Your task to perform on an android device: Go to Wikipedia Image 0: 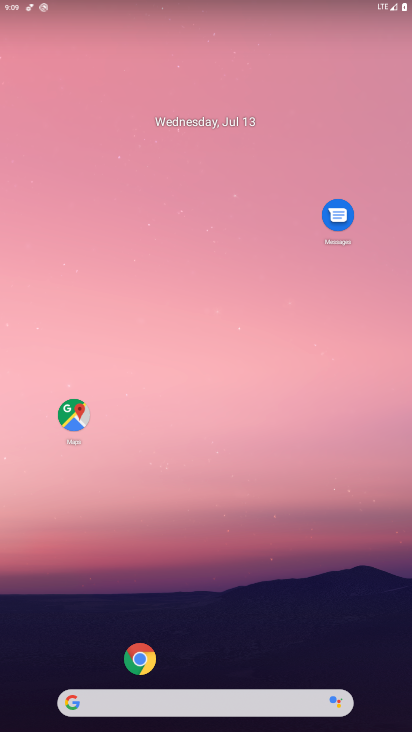
Step 0: click (127, 703)
Your task to perform on an android device: Go to Wikipedia Image 1: 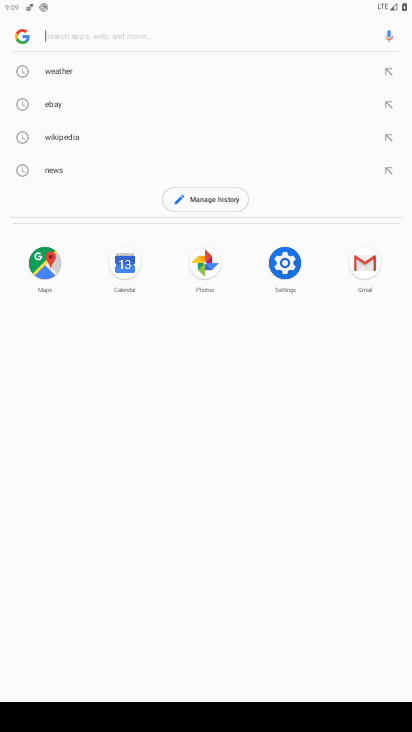
Step 1: type "Wikipedia"
Your task to perform on an android device: Go to Wikipedia Image 2: 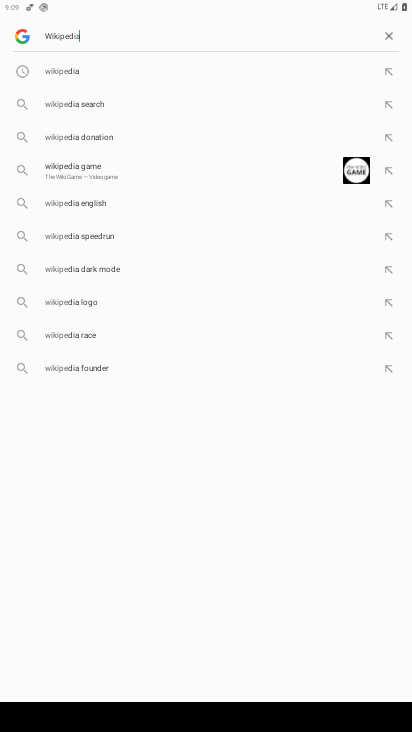
Step 2: type ""
Your task to perform on an android device: Go to Wikipedia Image 3: 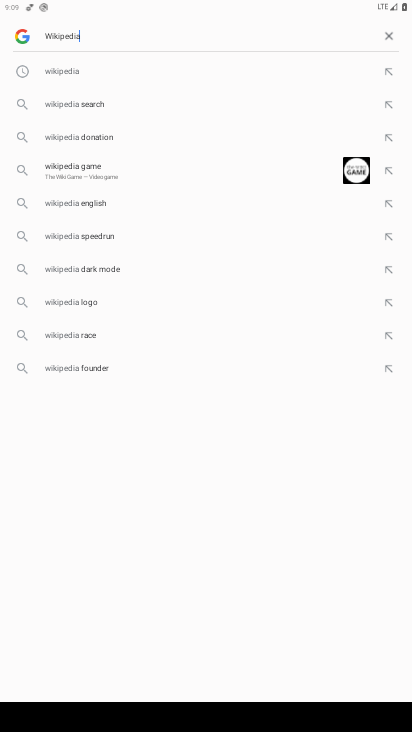
Step 3: click (70, 72)
Your task to perform on an android device: Go to Wikipedia Image 4: 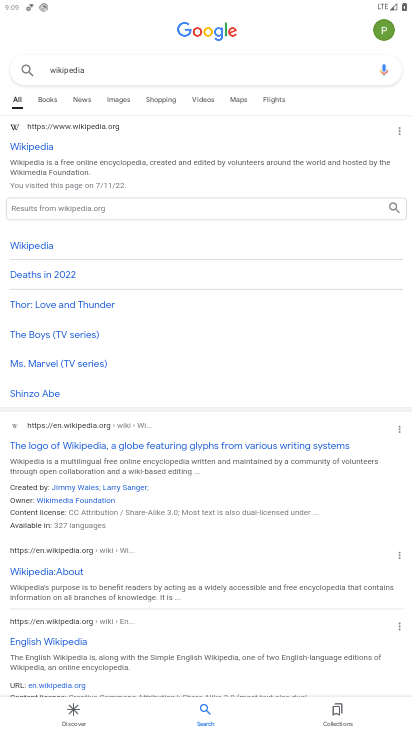
Step 4: task complete